Your task to perform on an android device: Check the news Image 0: 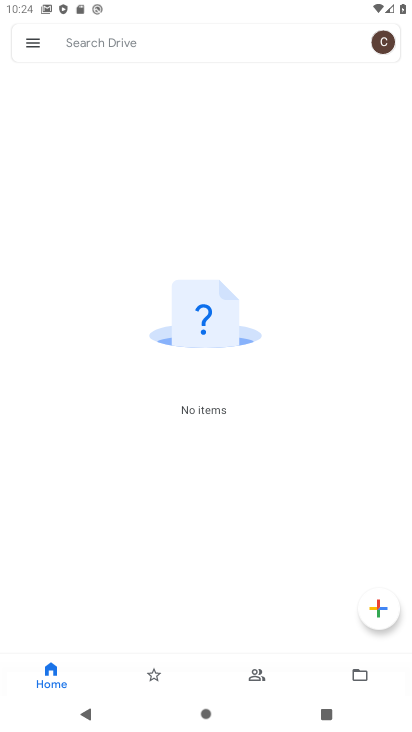
Step 0: press home button
Your task to perform on an android device: Check the news Image 1: 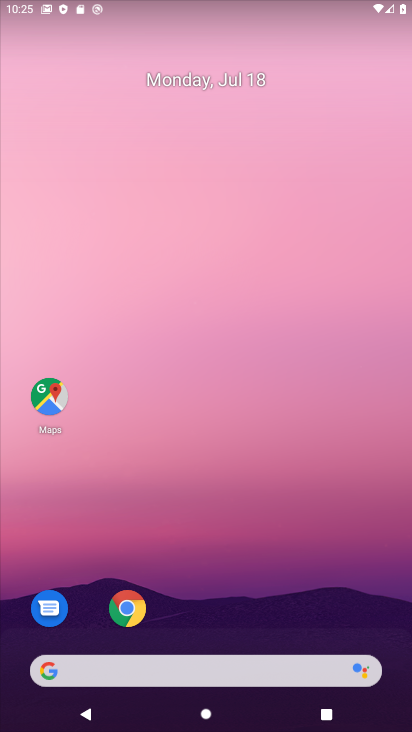
Step 1: drag from (328, 606) to (239, 51)
Your task to perform on an android device: Check the news Image 2: 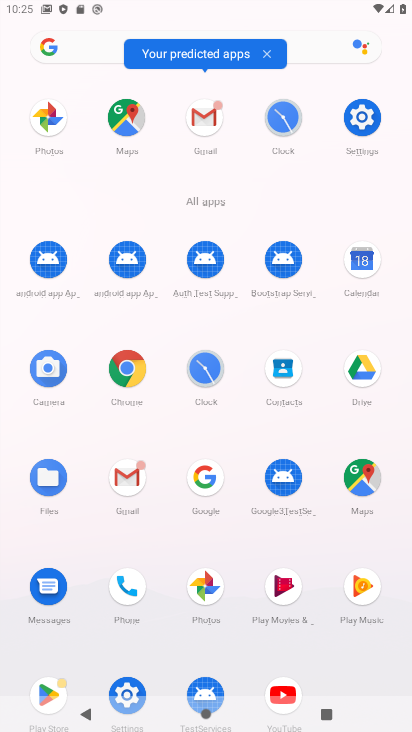
Step 2: click (130, 380)
Your task to perform on an android device: Check the news Image 3: 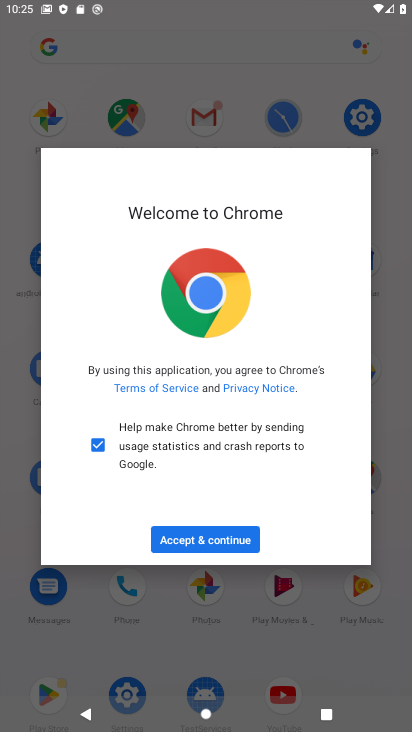
Step 3: click (209, 544)
Your task to perform on an android device: Check the news Image 4: 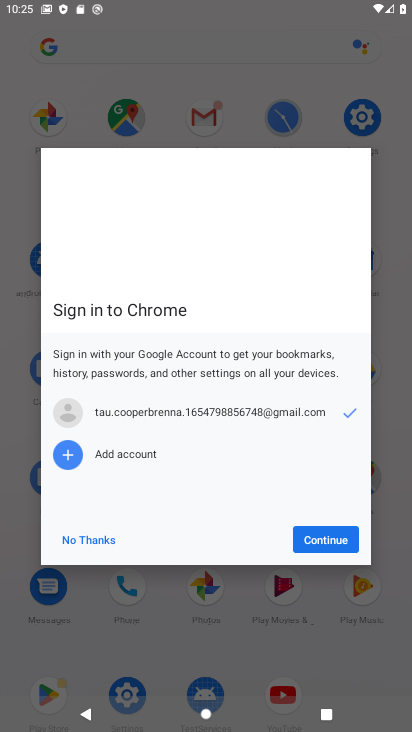
Step 4: click (340, 541)
Your task to perform on an android device: Check the news Image 5: 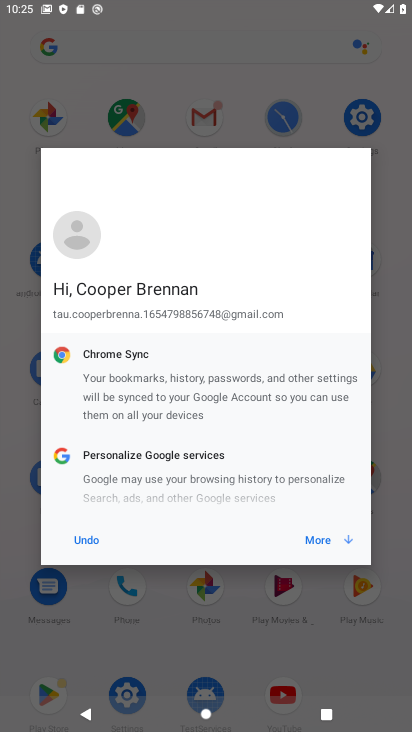
Step 5: click (340, 541)
Your task to perform on an android device: Check the news Image 6: 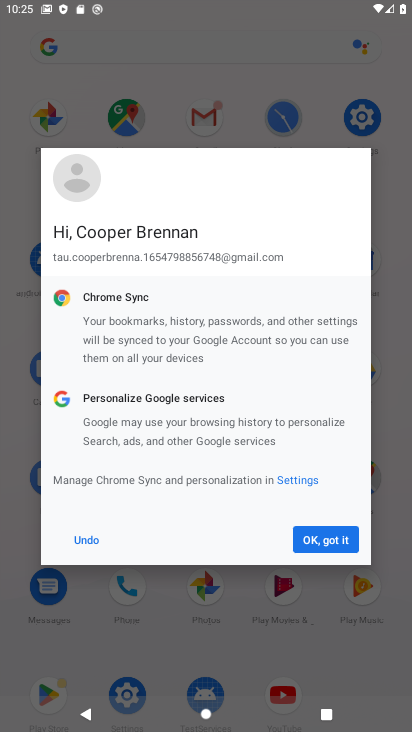
Step 6: click (340, 541)
Your task to perform on an android device: Check the news Image 7: 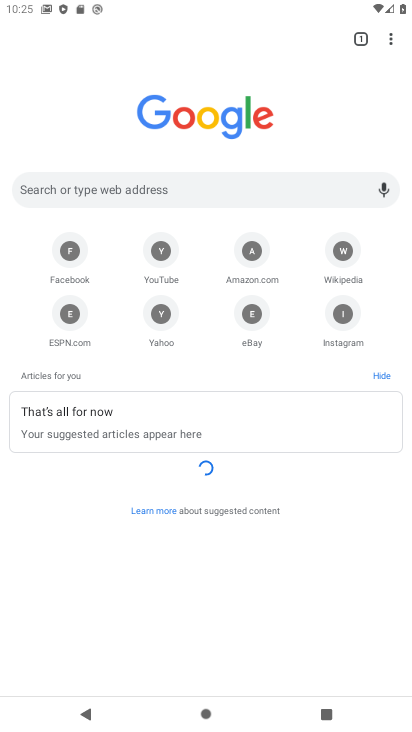
Step 7: click (341, 191)
Your task to perform on an android device: Check the news Image 8: 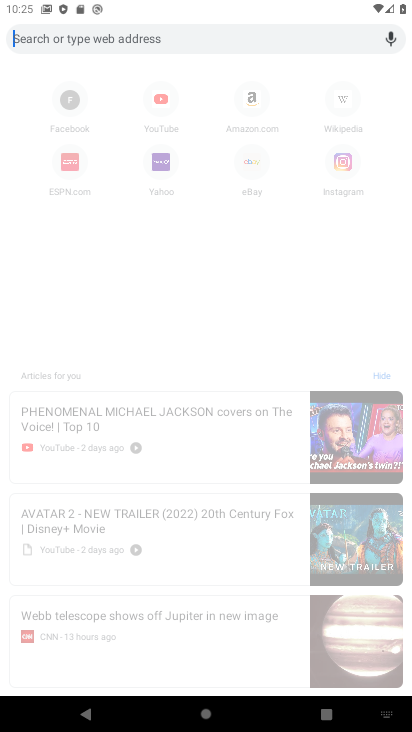
Step 8: type "news"
Your task to perform on an android device: Check the news Image 9: 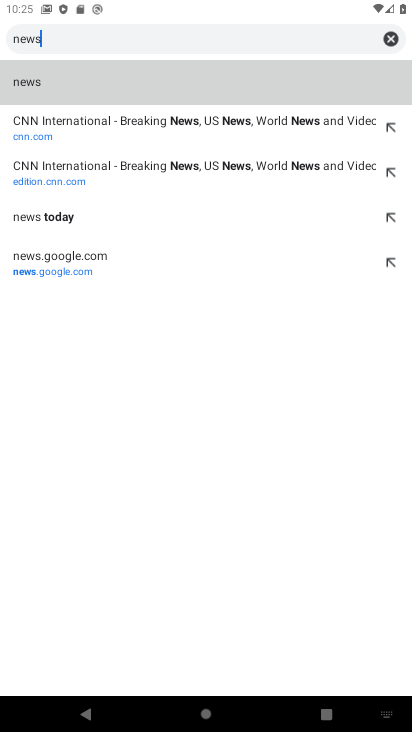
Step 9: click (106, 229)
Your task to perform on an android device: Check the news Image 10: 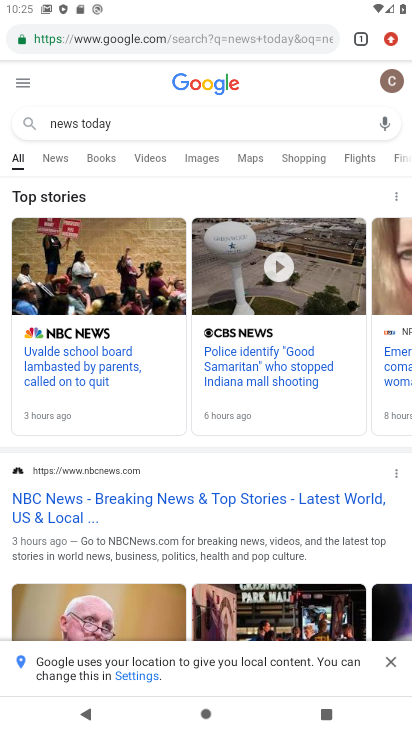
Step 10: task complete